Your task to perform on an android device: toggle priority inbox in the gmail app Image 0: 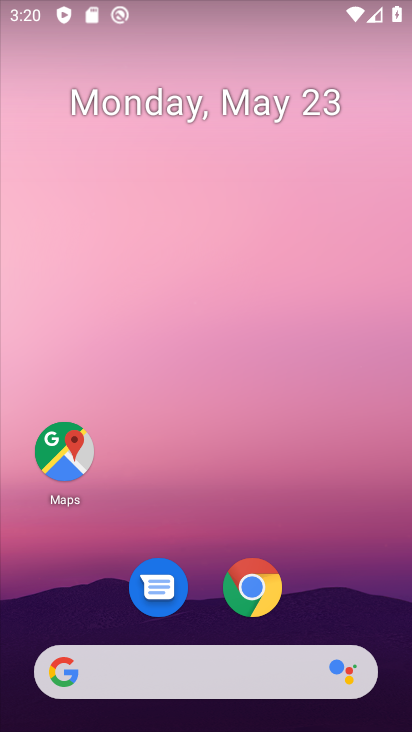
Step 0: drag from (190, 686) to (312, 238)
Your task to perform on an android device: toggle priority inbox in the gmail app Image 1: 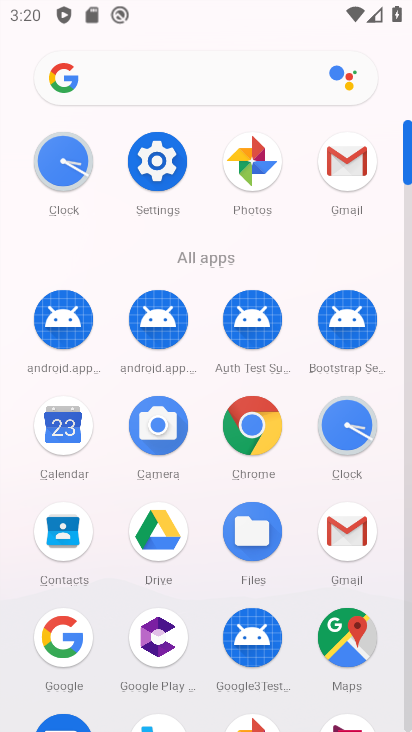
Step 1: click (351, 186)
Your task to perform on an android device: toggle priority inbox in the gmail app Image 2: 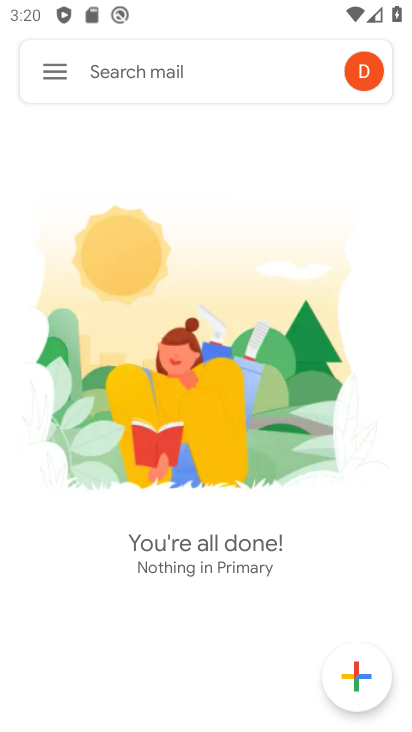
Step 2: click (49, 73)
Your task to perform on an android device: toggle priority inbox in the gmail app Image 3: 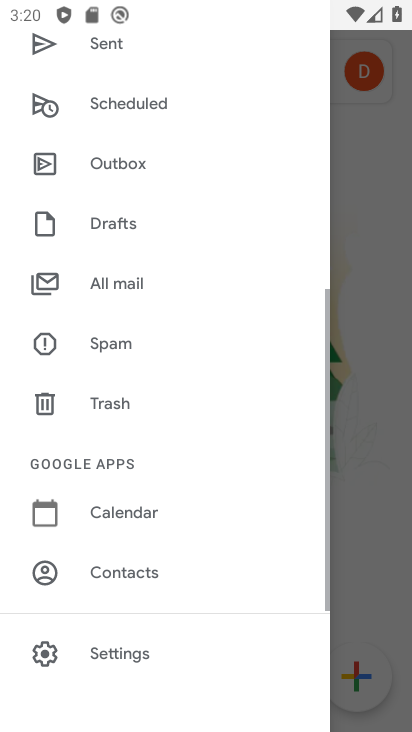
Step 3: click (139, 651)
Your task to perform on an android device: toggle priority inbox in the gmail app Image 4: 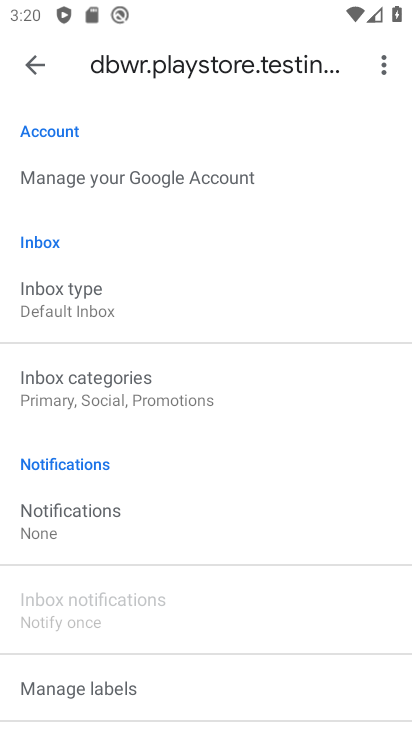
Step 4: click (86, 305)
Your task to perform on an android device: toggle priority inbox in the gmail app Image 5: 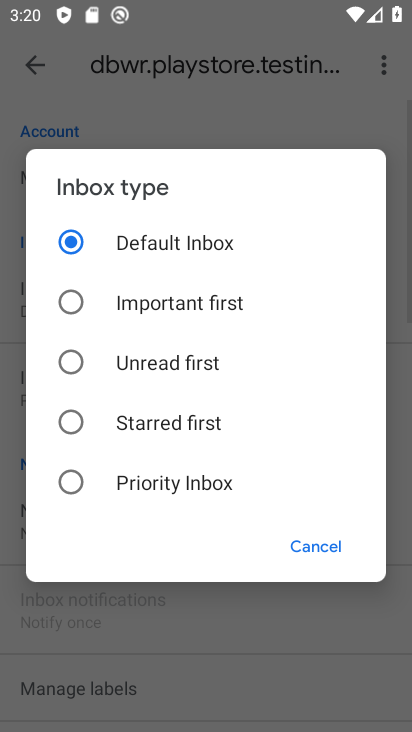
Step 5: click (74, 484)
Your task to perform on an android device: toggle priority inbox in the gmail app Image 6: 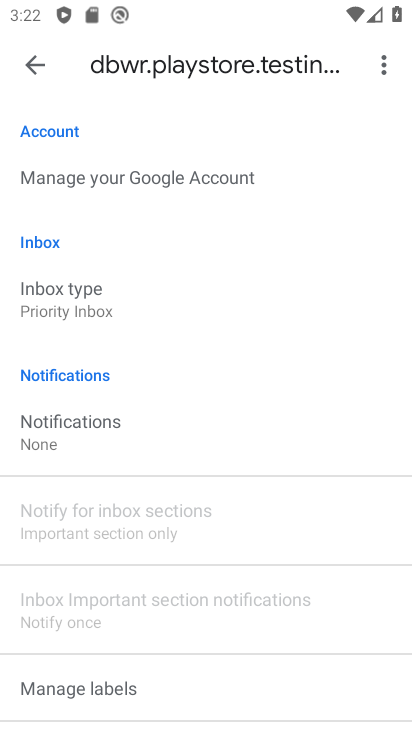
Step 6: task complete